Your task to perform on an android device: open app "Instagram" (install if not already installed) Image 0: 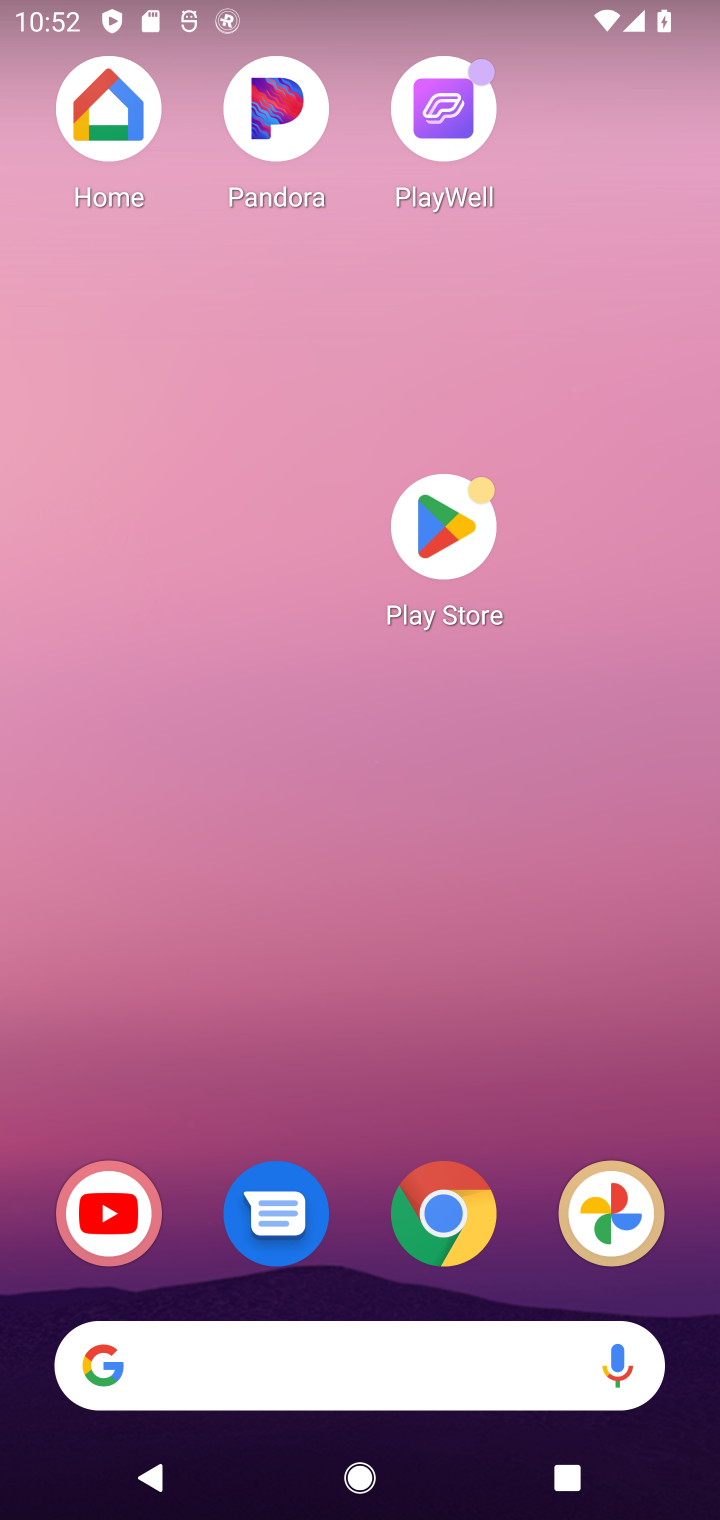
Step 0: click (444, 490)
Your task to perform on an android device: open app "Instagram" (install if not already installed) Image 1: 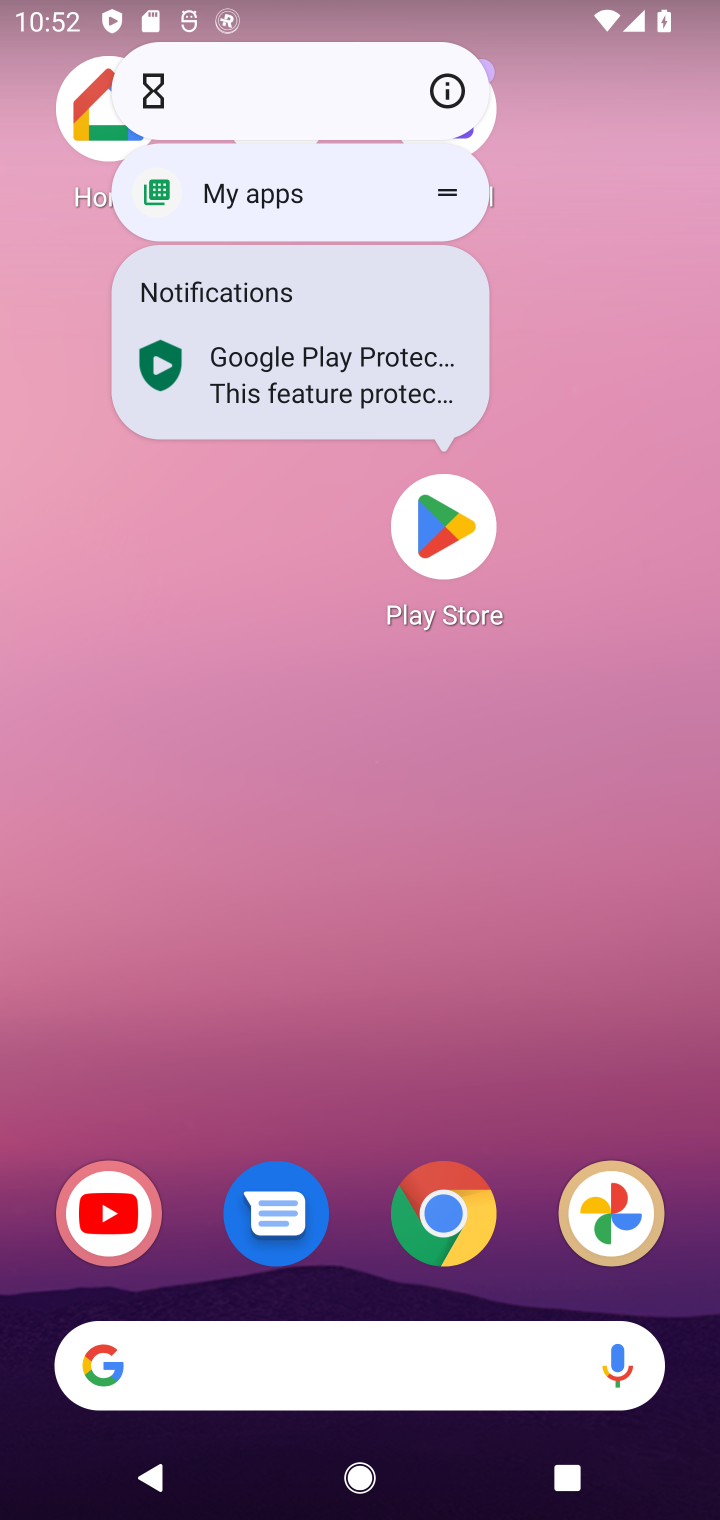
Step 1: click (438, 490)
Your task to perform on an android device: open app "Instagram" (install if not already installed) Image 2: 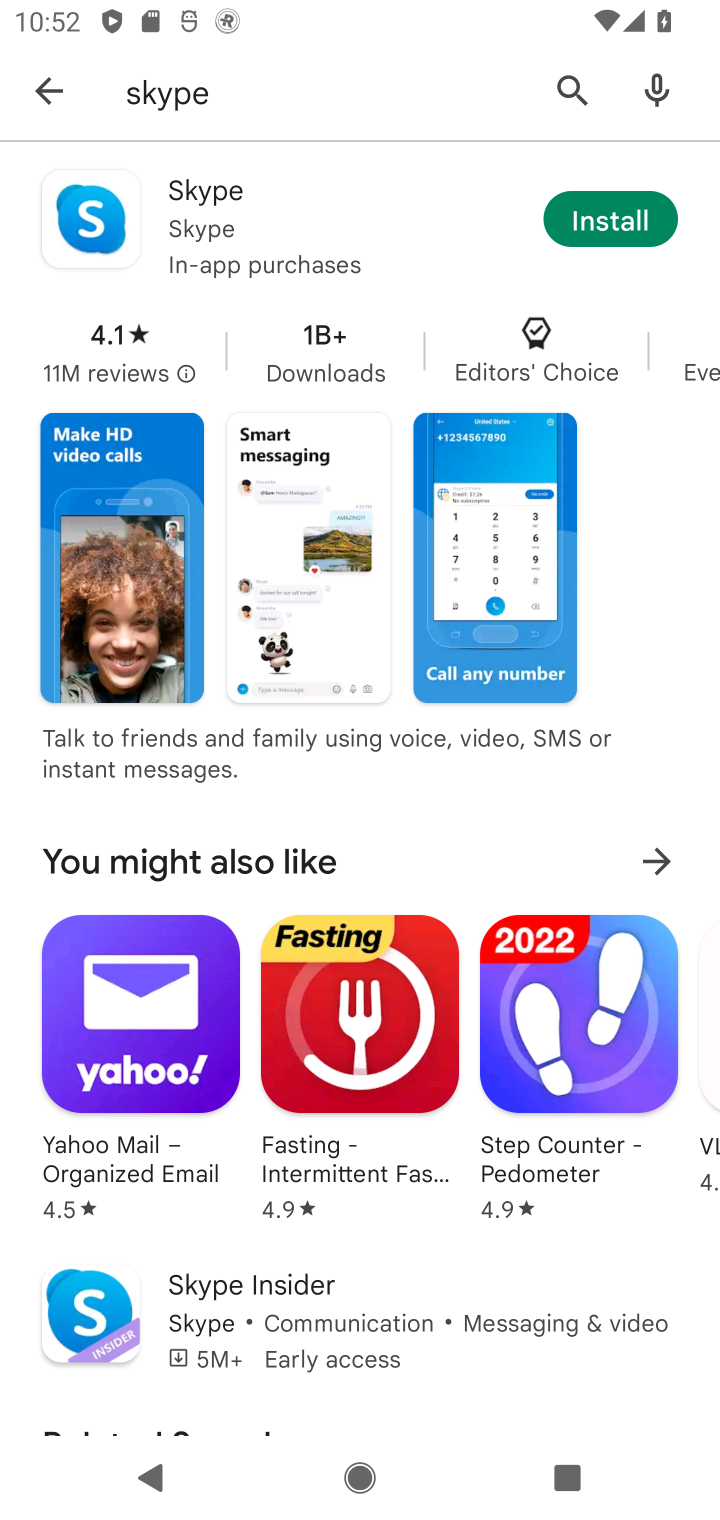
Step 2: click (379, 79)
Your task to perform on an android device: open app "Instagram" (install if not already installed) Image 3: 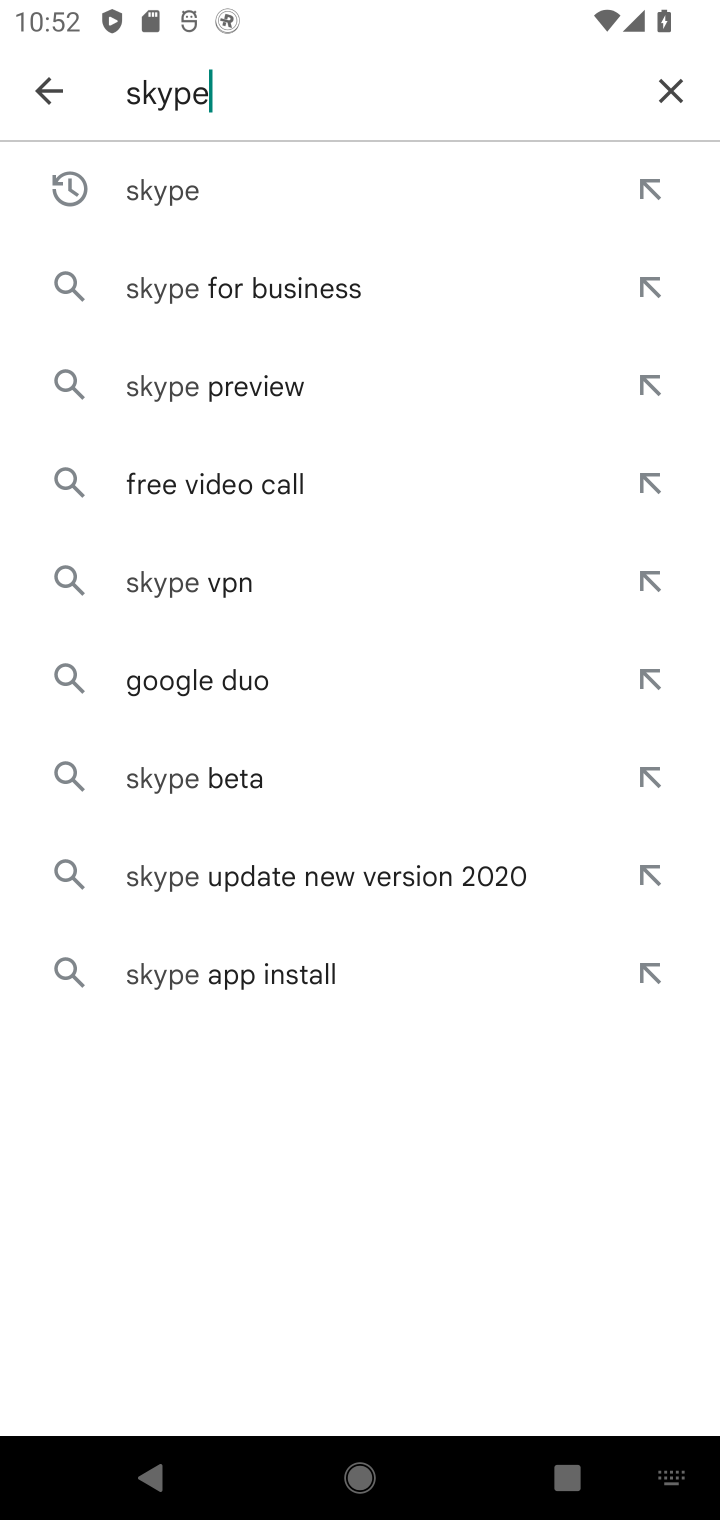
Step 3: click (691, 46)
Your task to perform on an android device: open app "Instagram" (install if not already installed) Image 4: 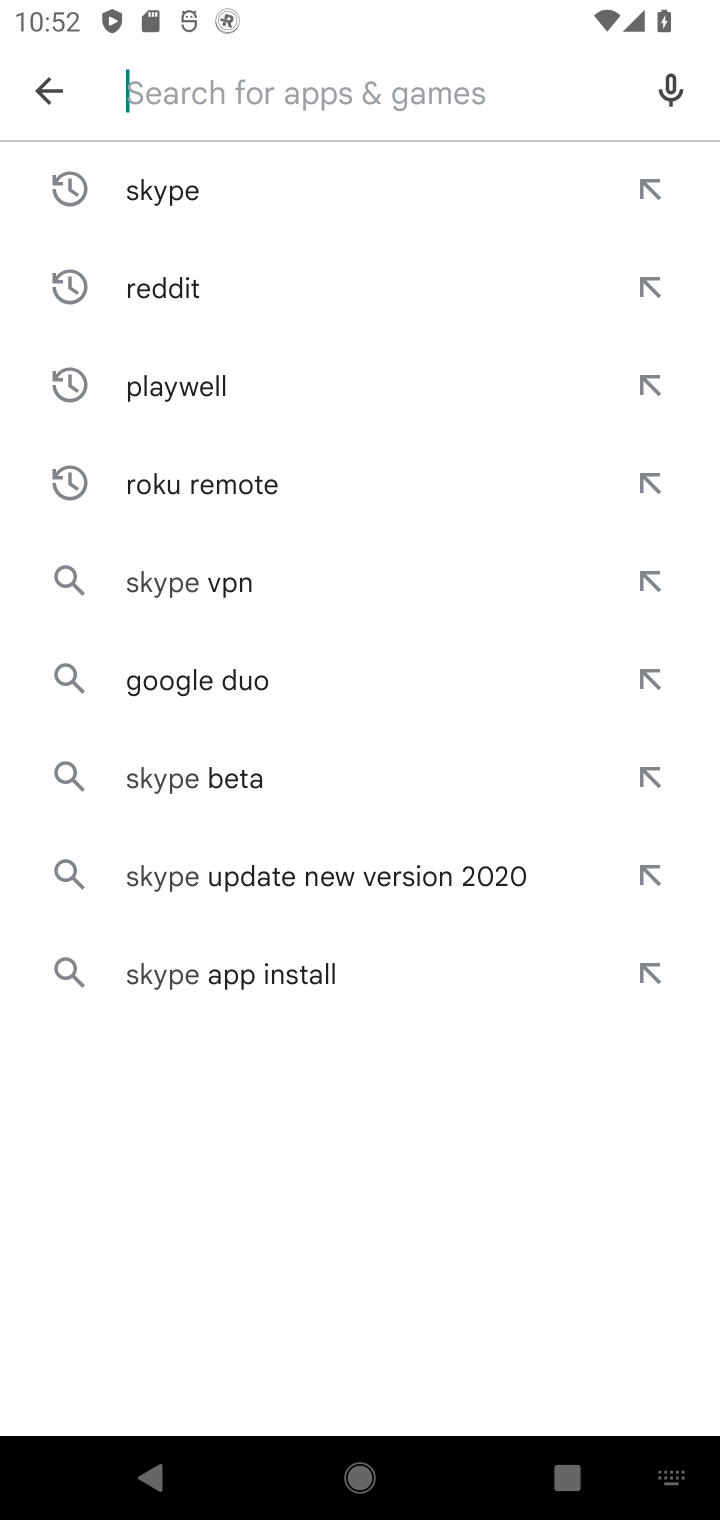
Step 4: click (664, 70)
Your task to perform on an android device: open app "Instagram" (install if not already installed) Image 5: 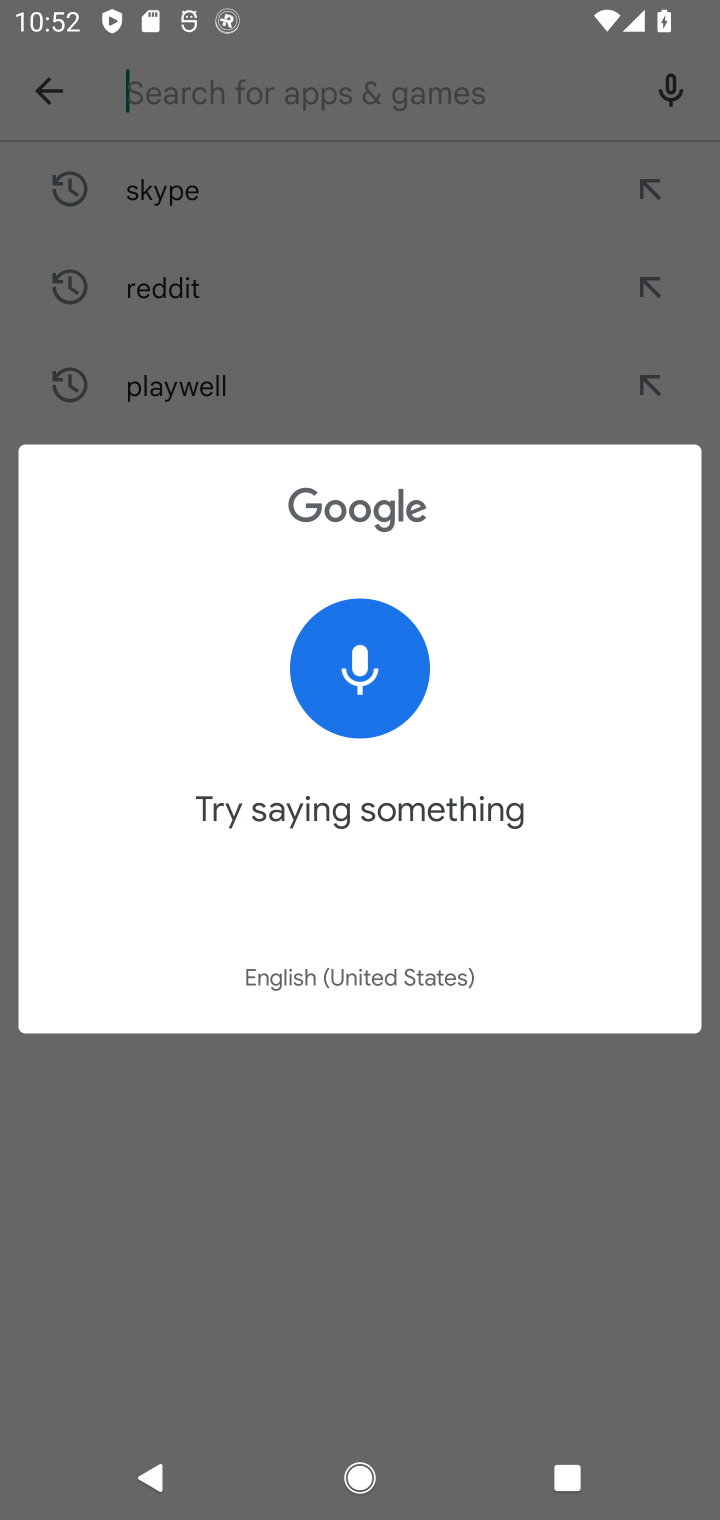
Step 5: type "i"
Your task to perform on an android device: open app "Instagram" (install if not already installed) Image 6: 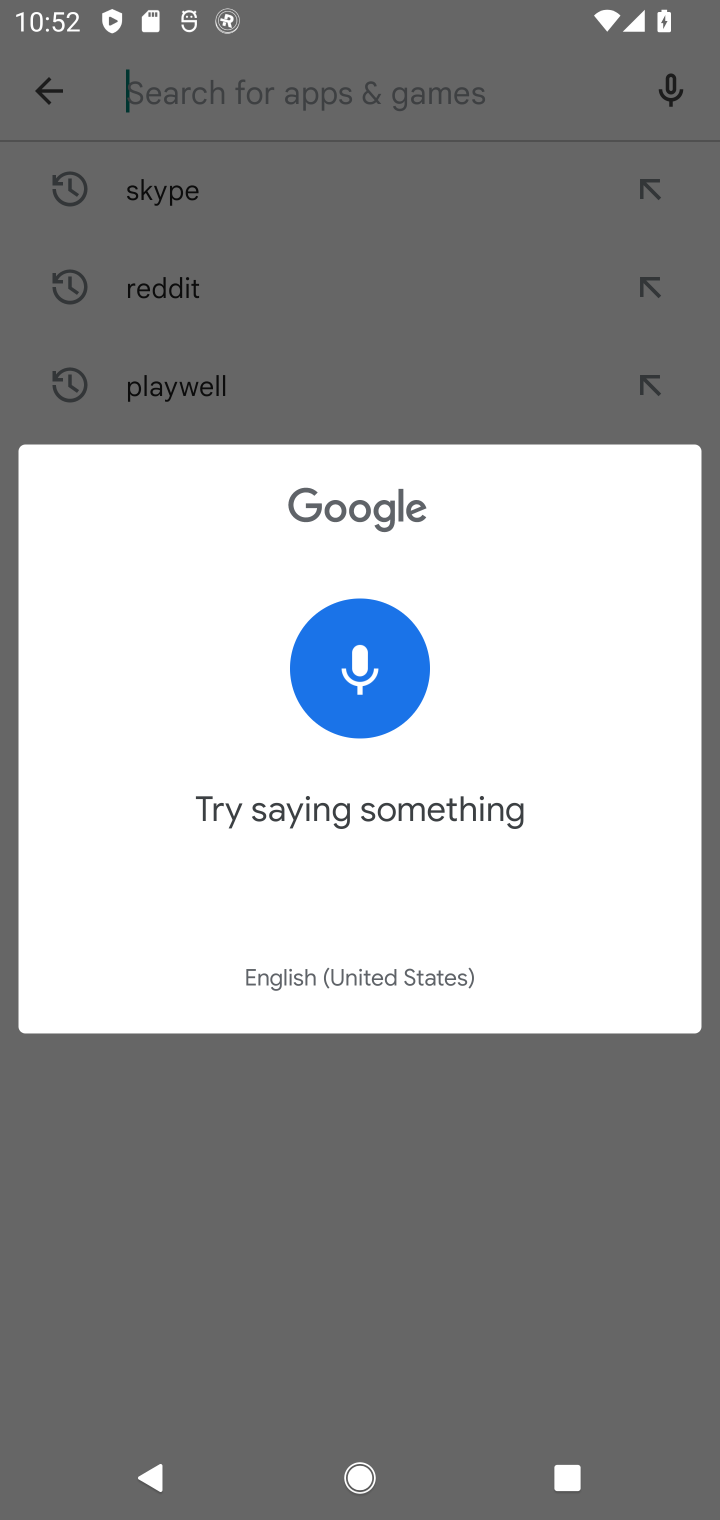
Step 6: click (315, 88)
Your task to perform on an android device: open app "Instagram" (install if not already installed) Image 7: 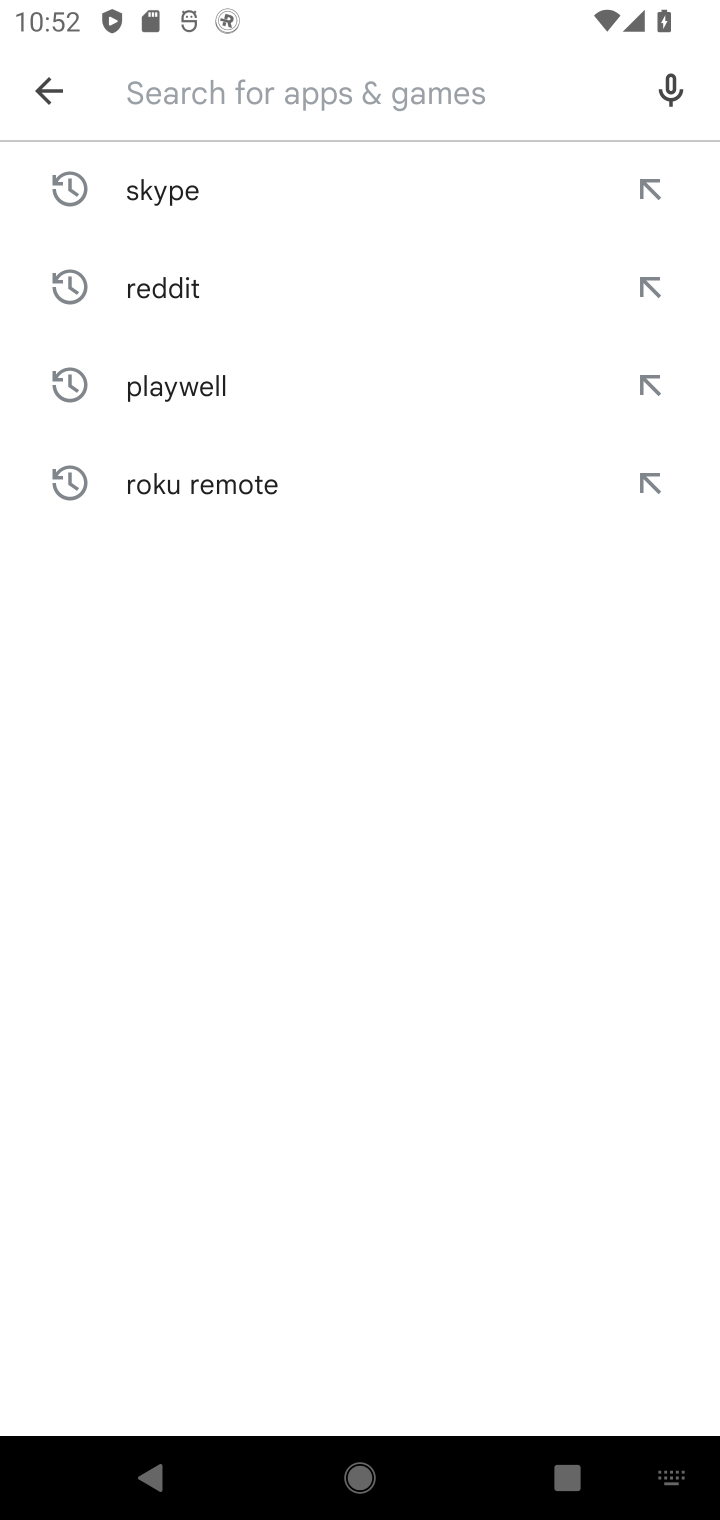
Step 7: type "insta"
Your task to perform on an android device: open app "Instagram" (install if not already installed) Image 8: 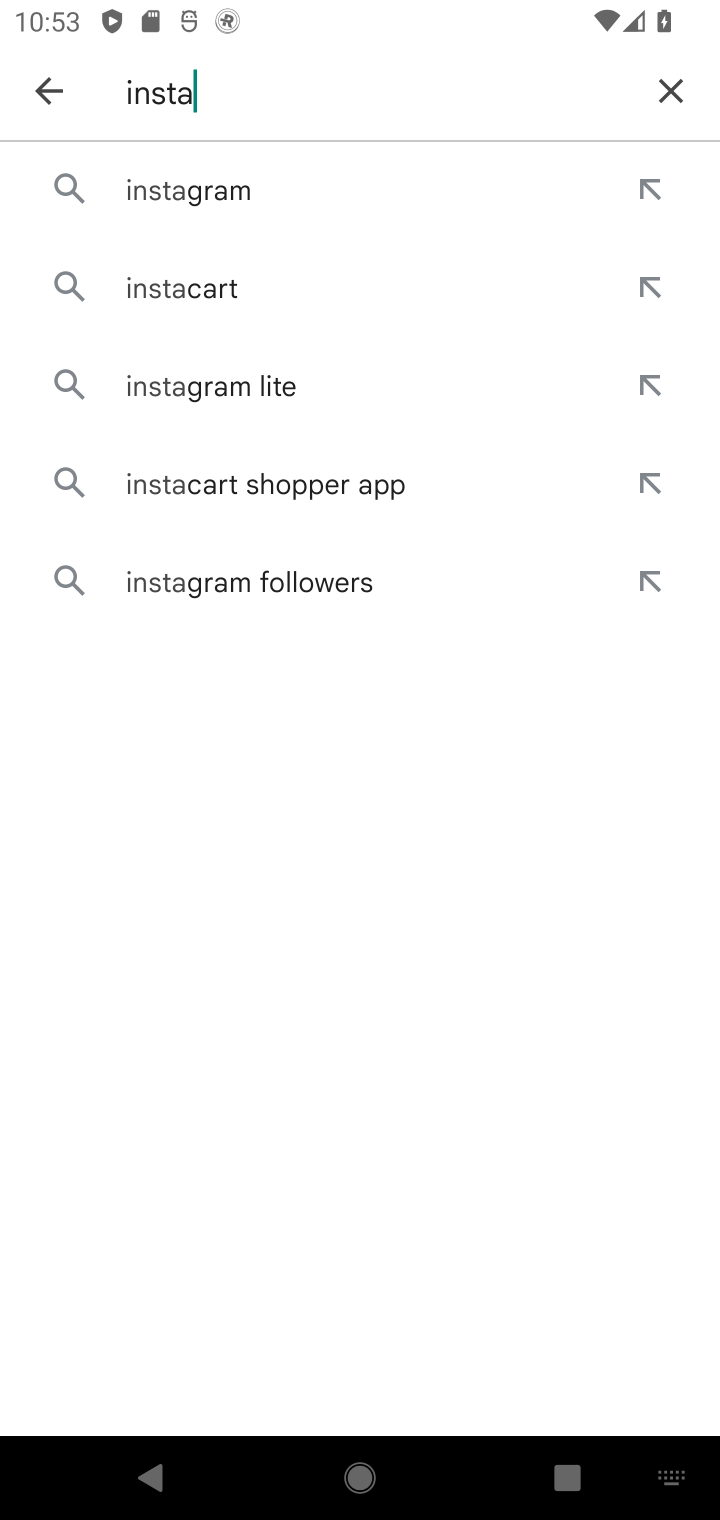
Step 8: type "insta"
Your task to perform on an android device: open app "Instagram" (install if not already installed) Image 9: 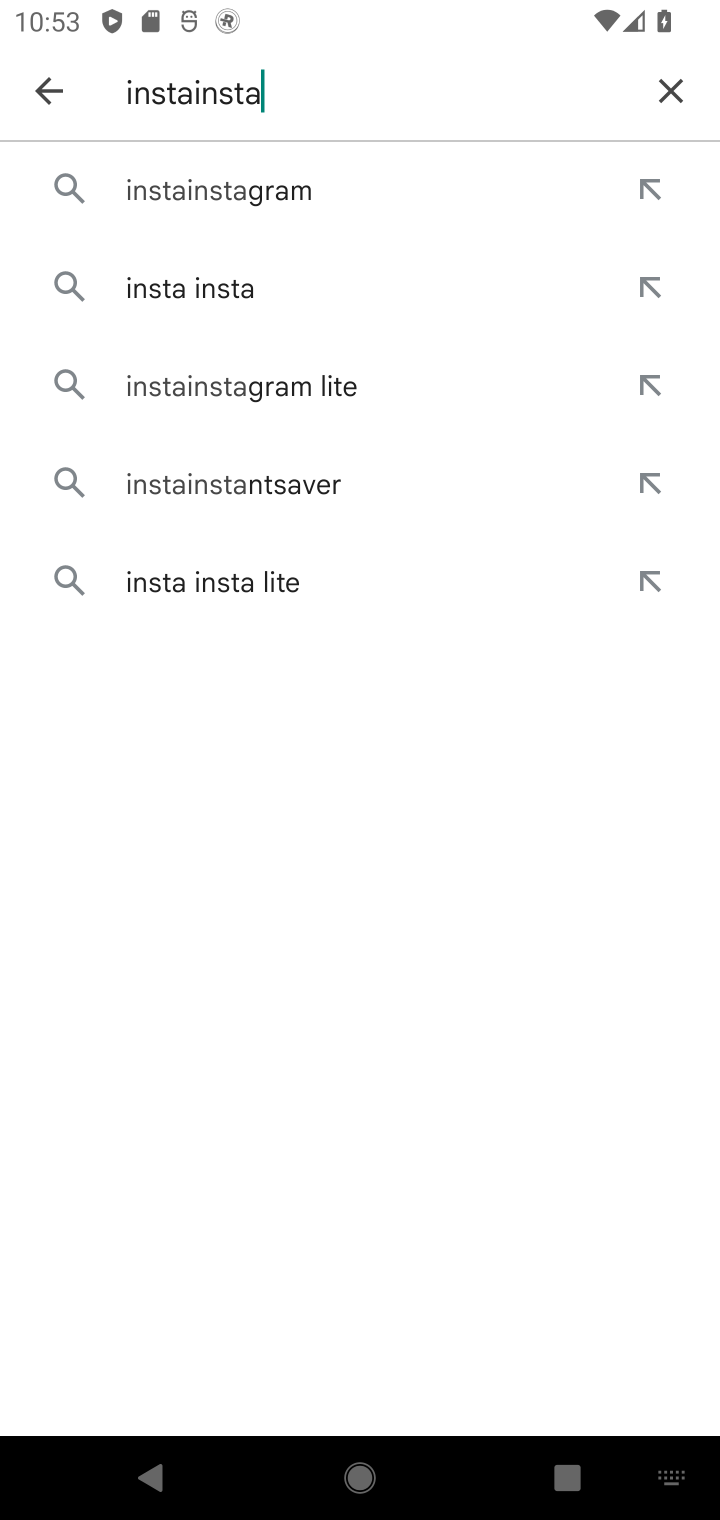
Step 9: click (254, 186)
Your task to perform on an android device: open app "Instagram" (install if not already installed) Image 10: 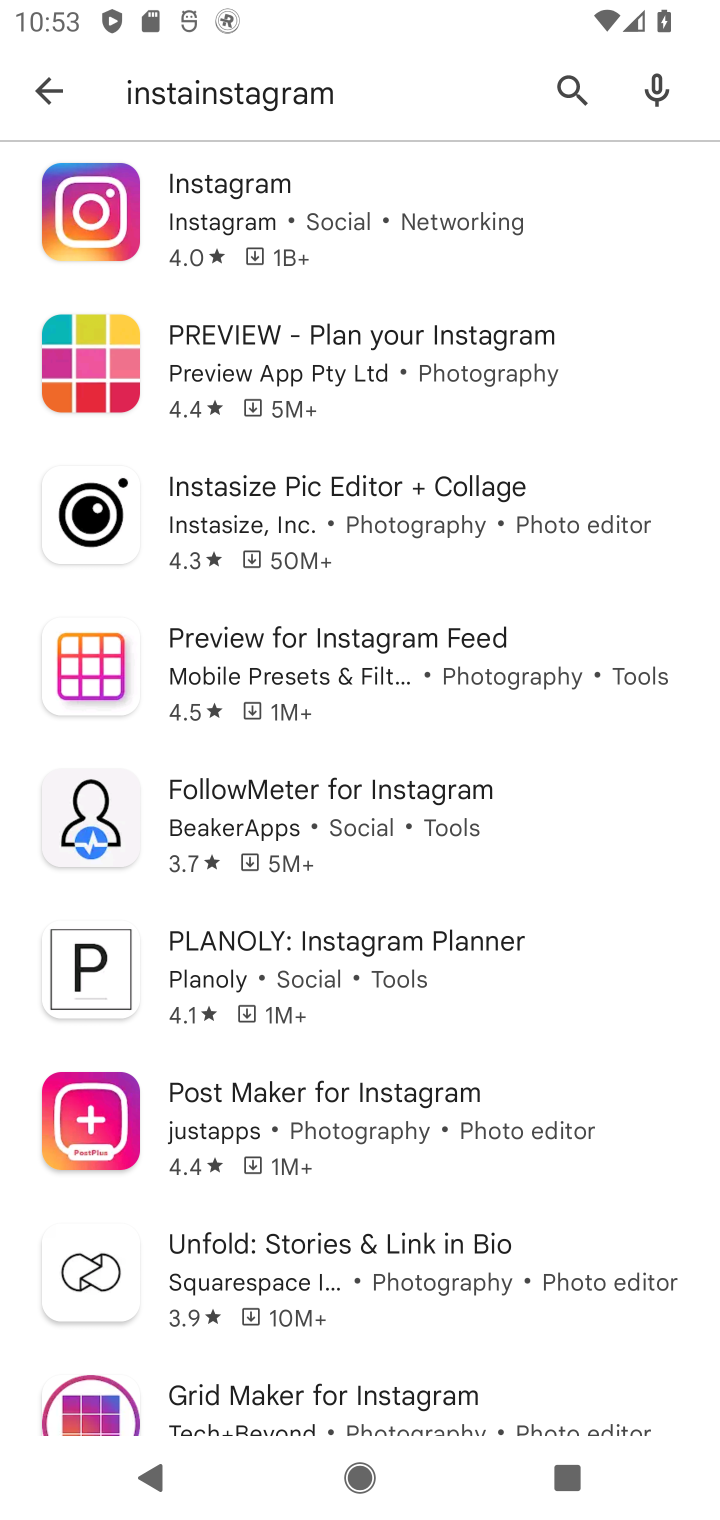
Step 10: click (254, 186)
Your task to perform on an android device: open app "Instagram" (install if not already installed) Image 11: 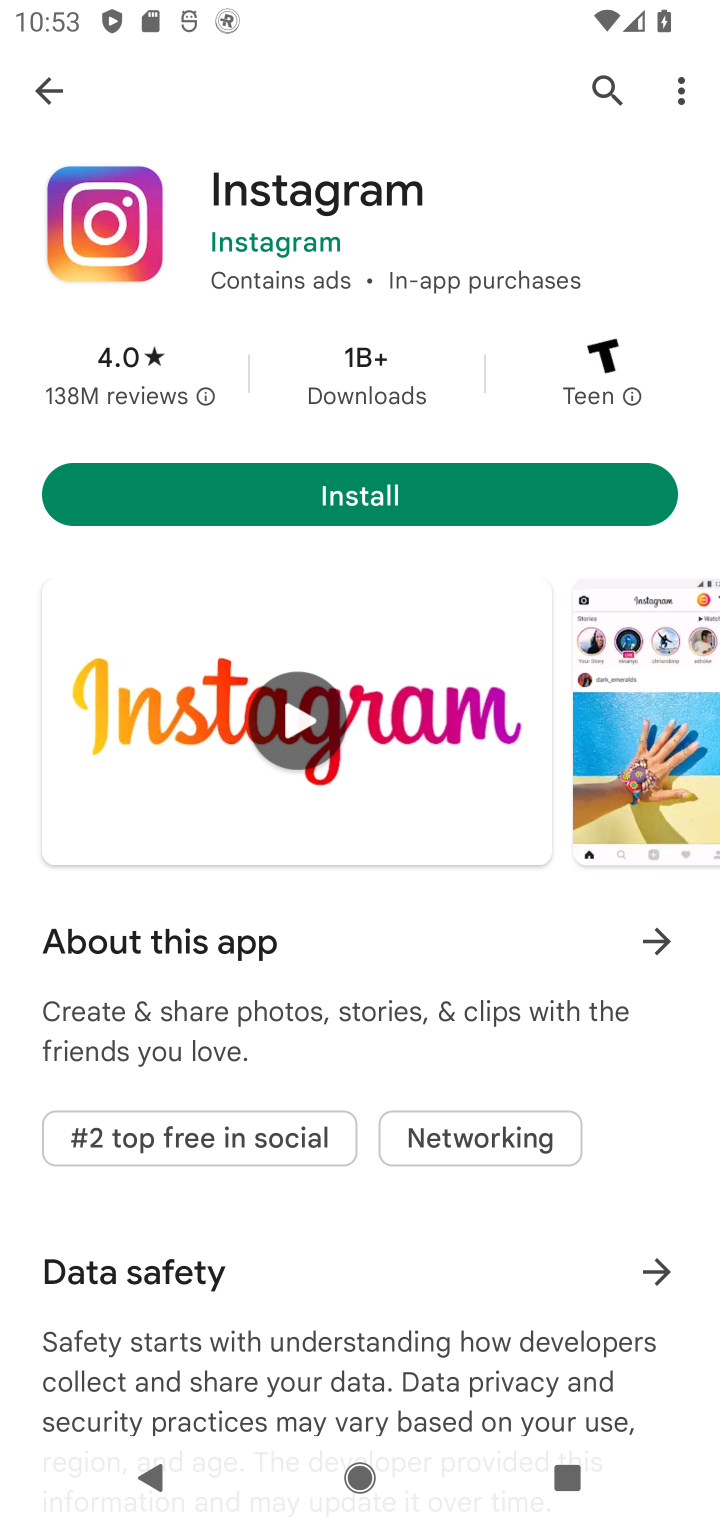
Step 11: click (436, 507)
Your task to perform on an android device: open app "Instagram" (install if not already installed) Image 12: 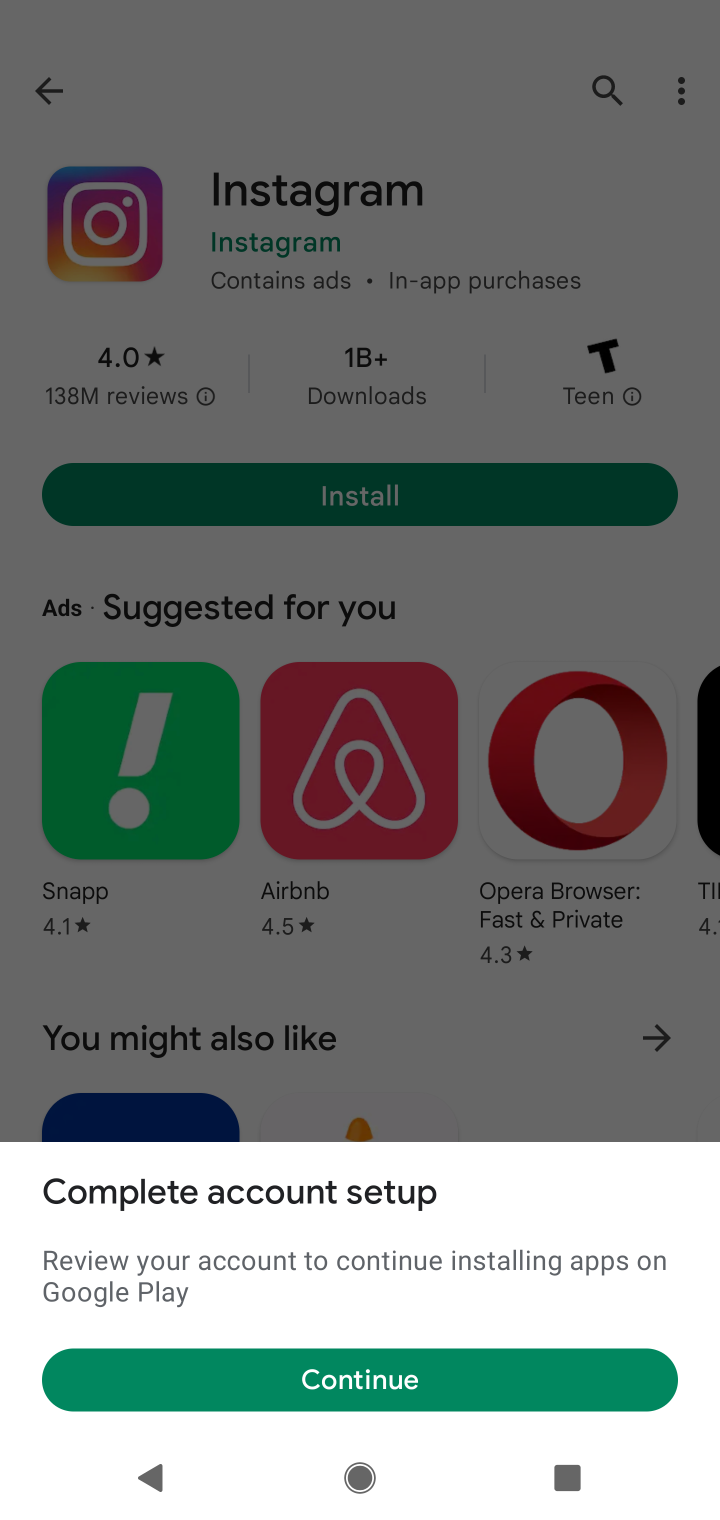
Step 12: click (337, 1373)
Your task to perform on an android device: open app "Instagram" (install if not already installed) Image 13: 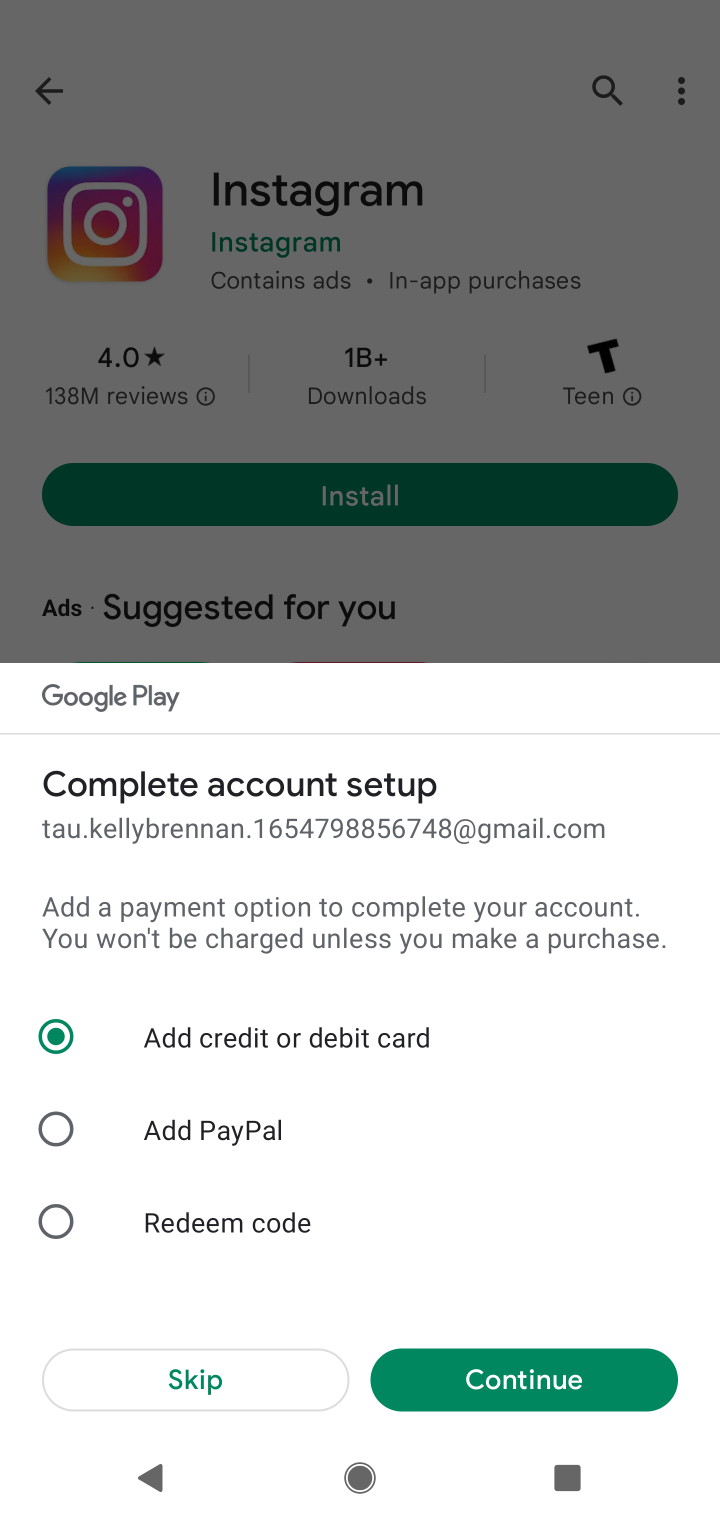
Step 13: click (280, 1373)
Your task to perform on an android device: open app "Instagram" (install if not already installed) Image 14: 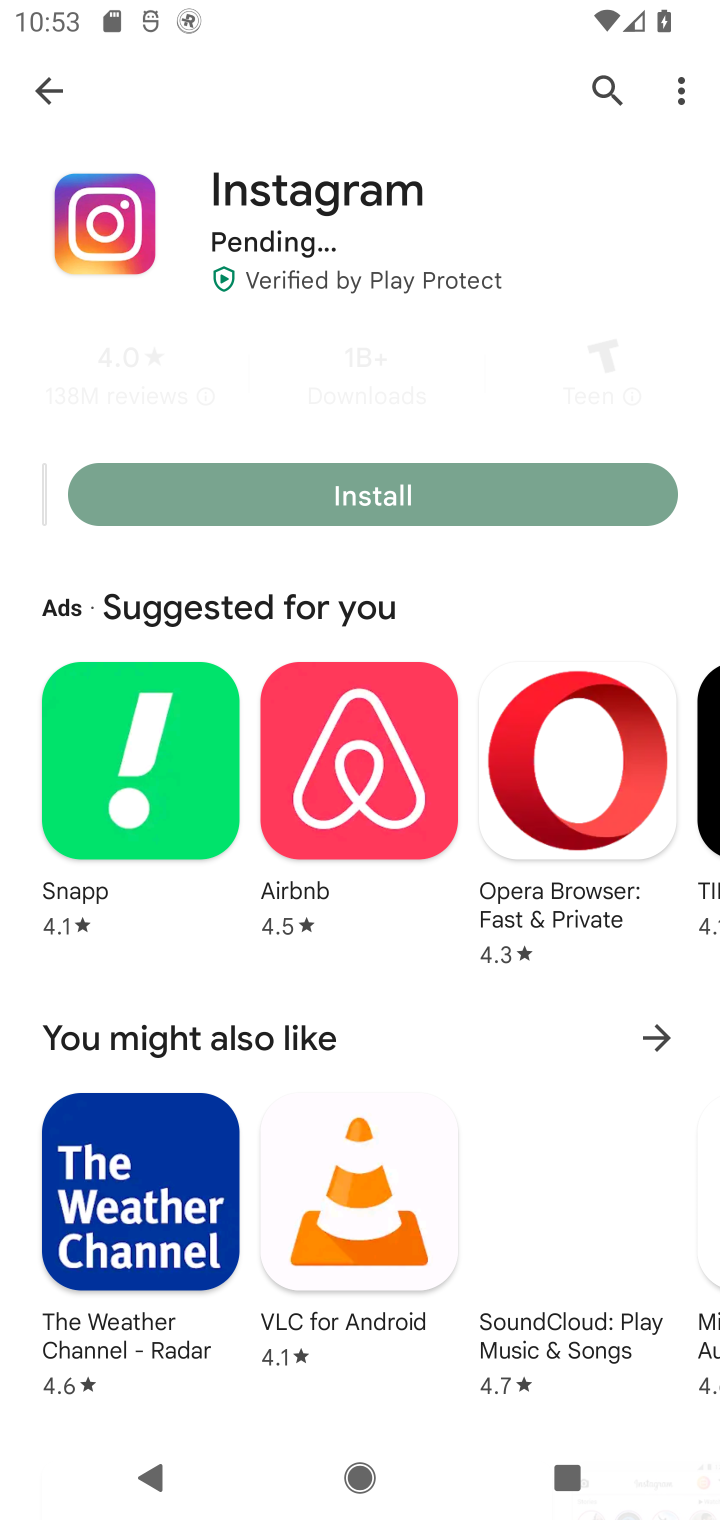
Step 14: click (497, 486)
Your task to perform on an android device: open app "Instagram" (install if not already installed) Image 15: 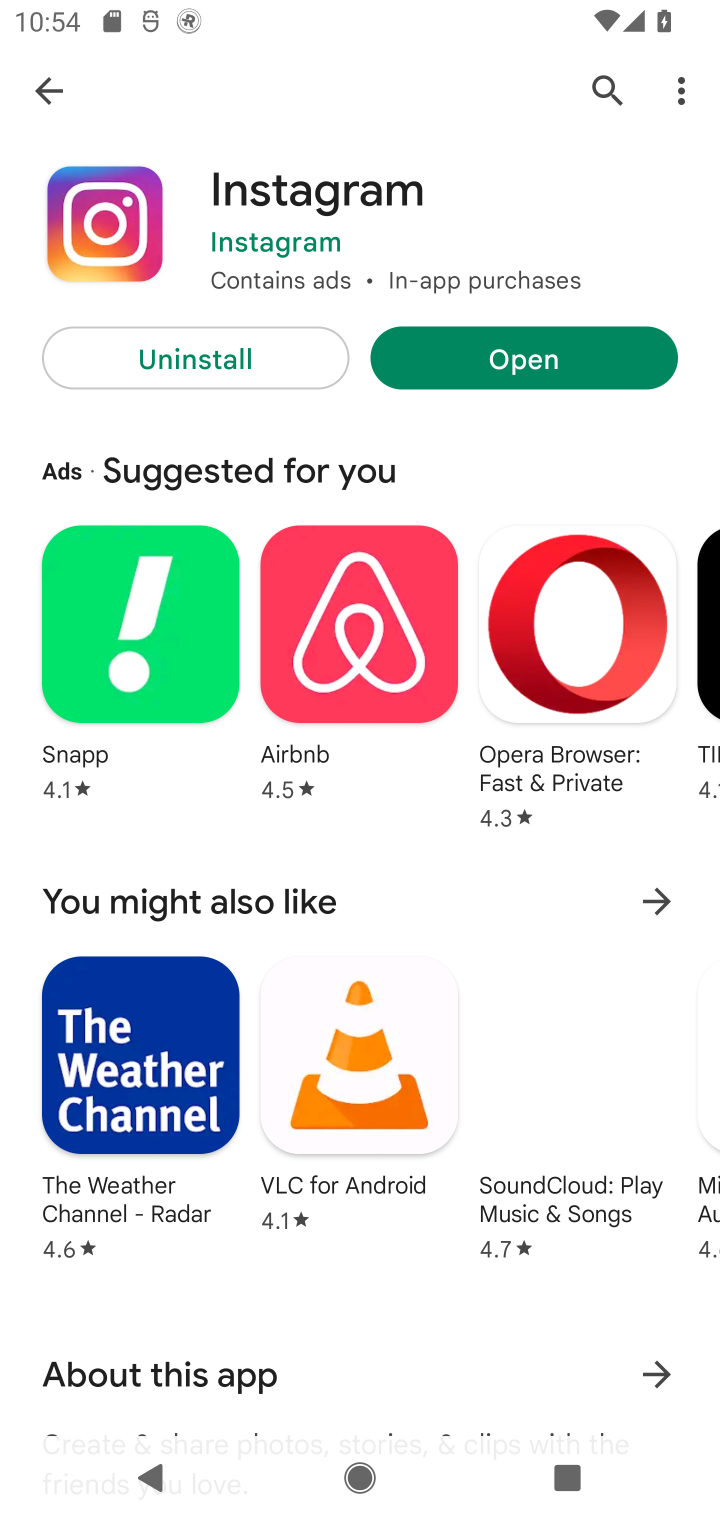
Step 15: task complete